Your task to perform on an android device: open chrome and create a bookmark for the current page Image 0: 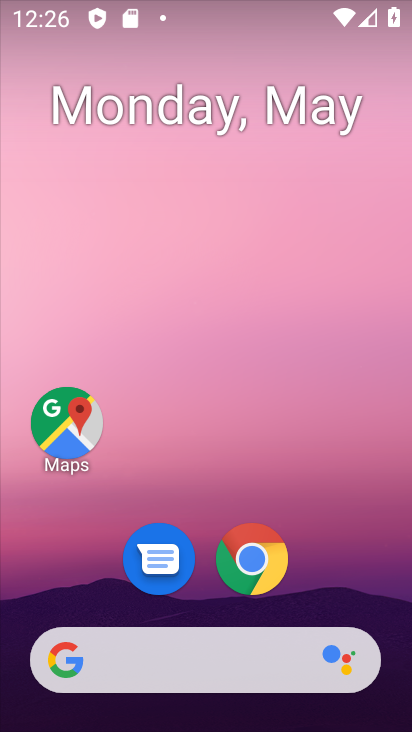
Step 0: click (238, 538)
Your task to perform on an android device: open chrome and create a bookmark for the current page Image 1: 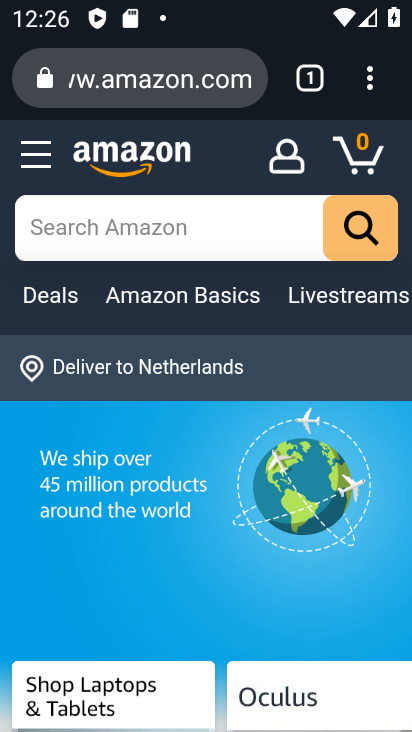
Step 1: click (371, 76)
Your task to perform on an android device: open chrome and create a bookmark for the current page Image 2: 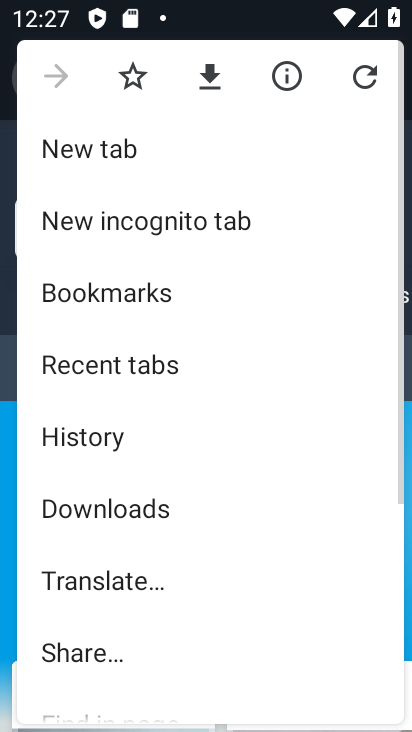
Step 2: click (124, 82)
Your task to perform on an android device: open chrome and create a bookmark for the current page Image 3: 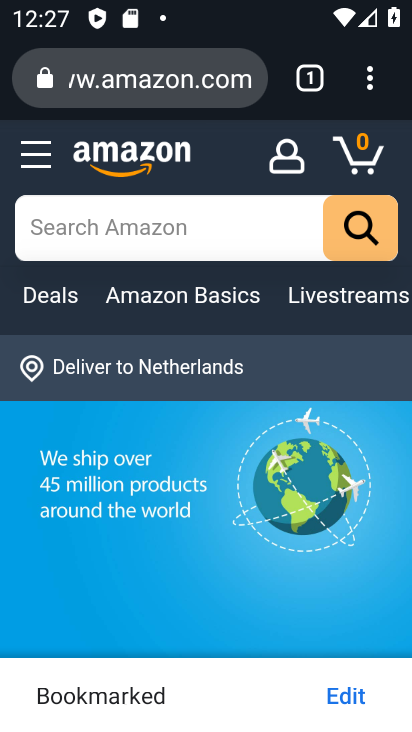
Step 3: task complete